Your task to perform on an android device: Do I have any events this weekend? Image 0: 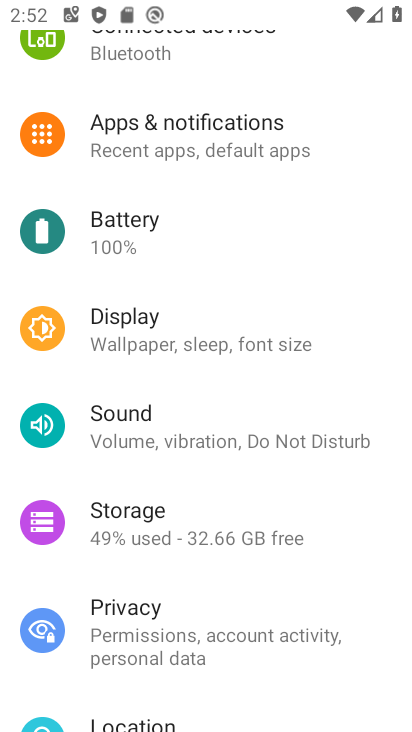
Step 0: press home button
Your task to perform on an android device: Do I have any events this weekend? Image 1: 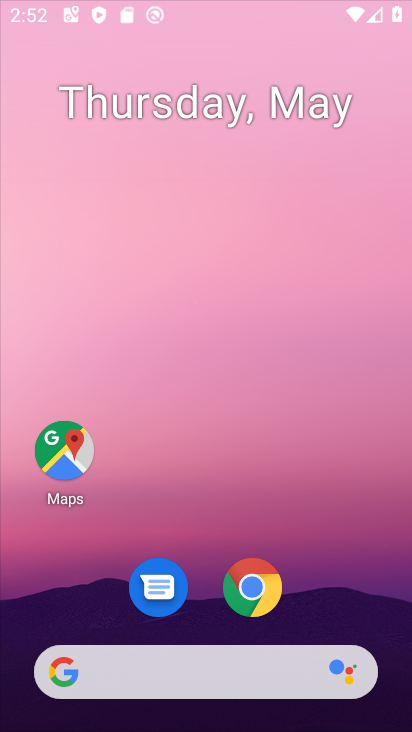
Step 1: drag from (240, 598) to (194, 13)
Your task to perform on an android device: Do I have any events this weekend? Image 2: 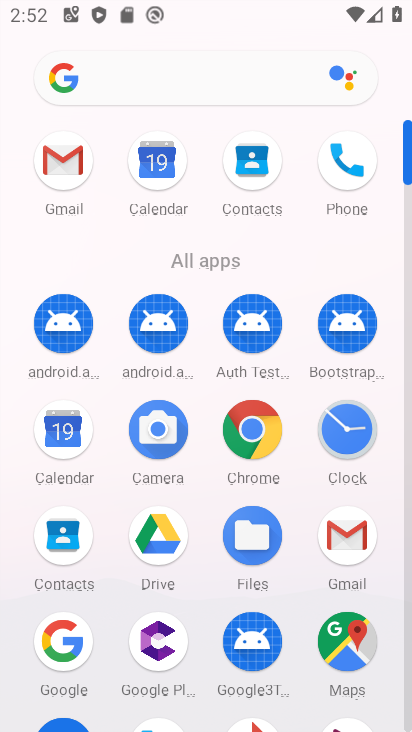
Step 2: click (70, 431)
Your task to perform on an android device: Do I have any events this weekend? Image 3: 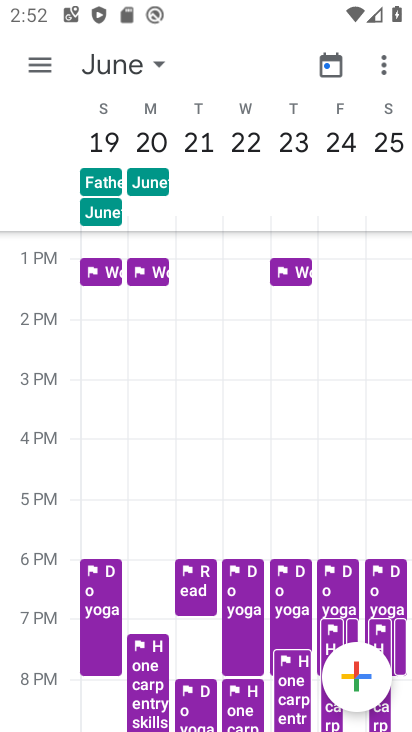
Step 3: click (115, 50)
Your task to perform on an android device: Do I have any events this weekend? Image 4: 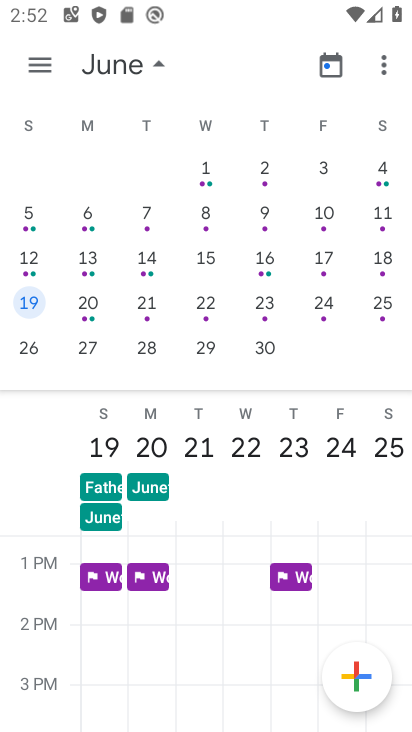
Step 4: drag from (56, 232) to (379, 231)
Your task to perform on an android device: Do I have any events this weekend? Image 5: 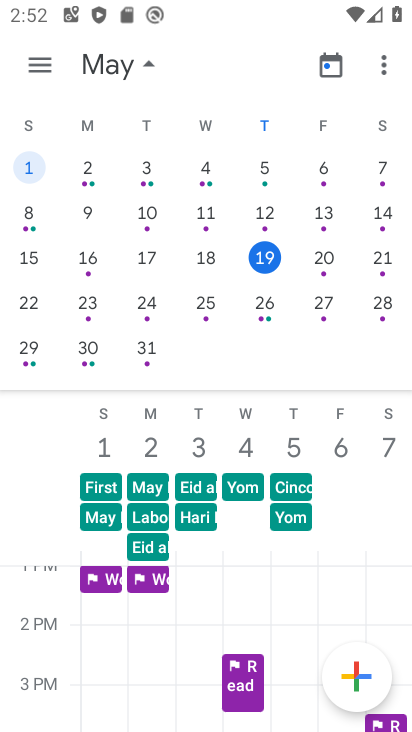
Step 5: click (250, 252)
Your task to perform on an android device: Do I have any events this weekend? Image 6: 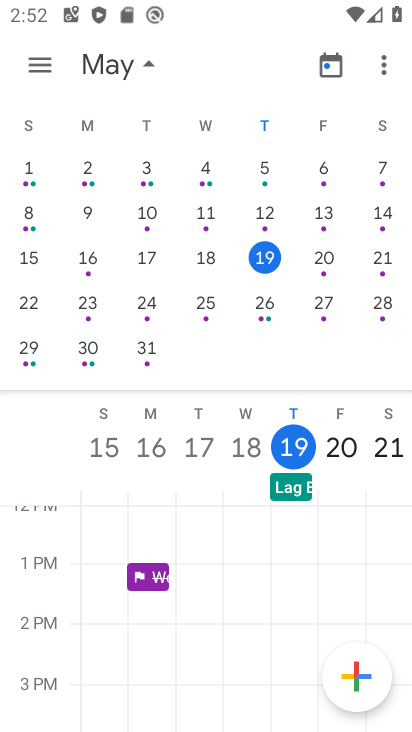
Step 6: task complete